Your task to perform on an android device: toggle notifications settings in the gmail app Image 0: 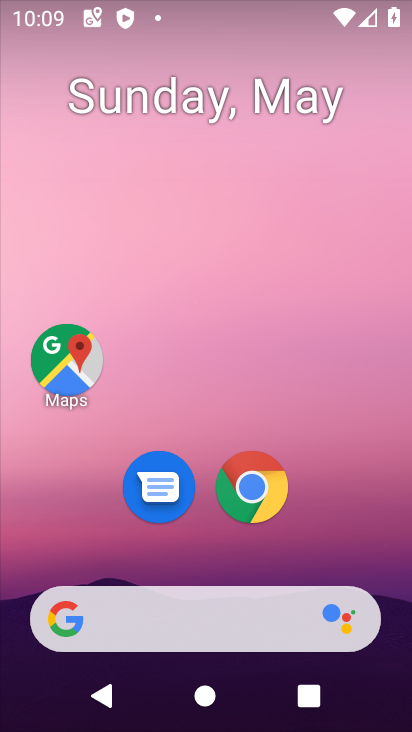
Step 0: drag from (370, 562) to (330, 177)
Your task to perform on an android device: toggle notifications settings in the gmail app Image 1: 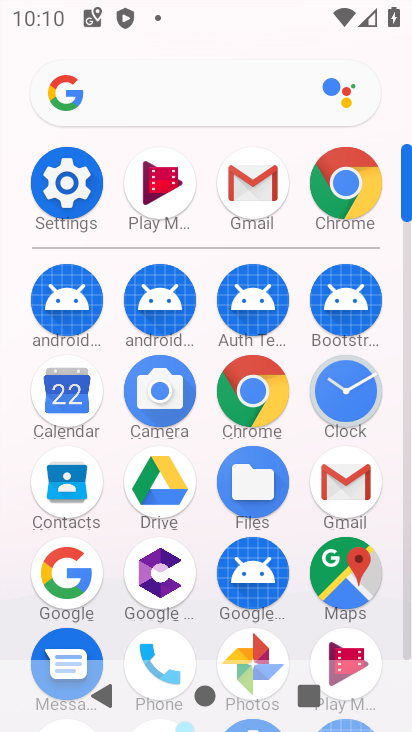
Step 1: click (368, 490)
Your task to perform on an android device: toggle notifications settings in the gmail app Image 2: 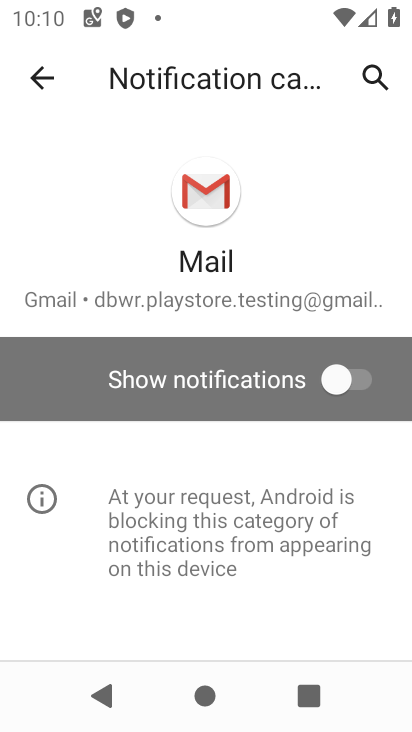
Step 2: click (340, 382)
Your task to perform on an android device: toggle notifications settings in the gmail app Image 3: 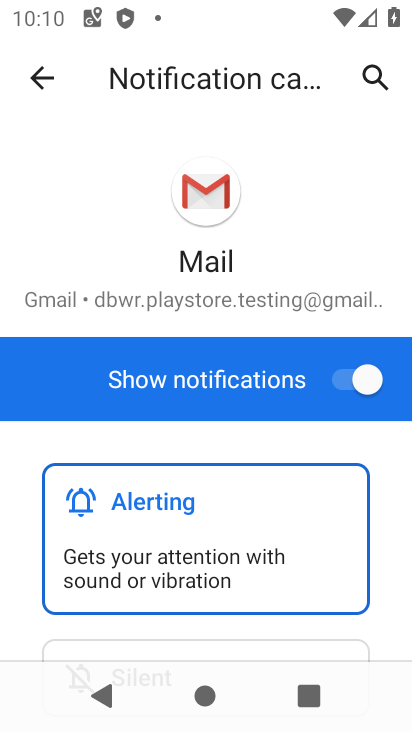
Step 3: task complete